Your task to perform on an android device: Open Google Image 0: 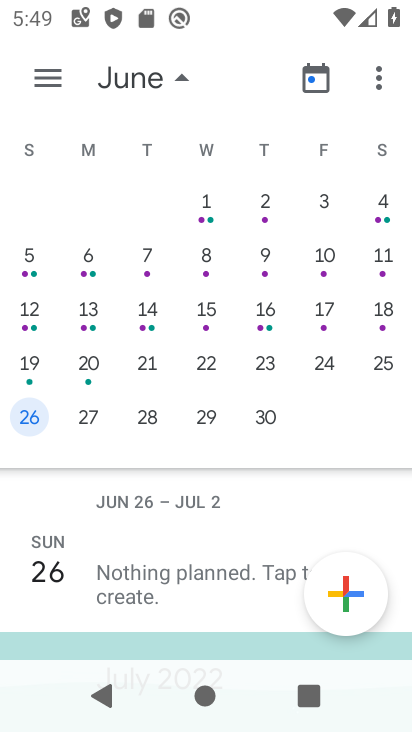
Step 0: press home button
Your task to perform on an android device: Open Google Image 1: 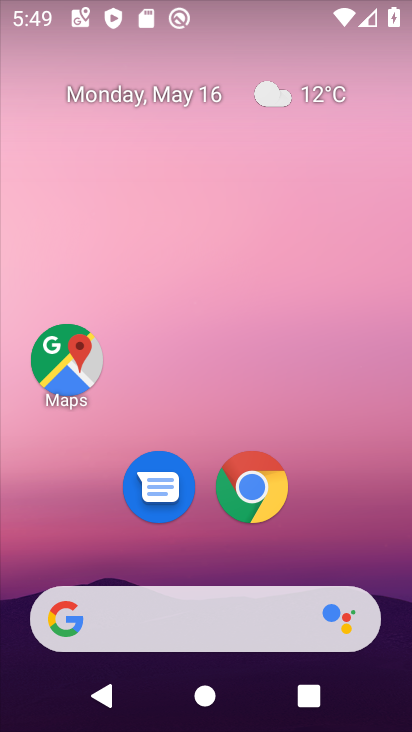
Step 1: drag from (374, 423) to (296, 0)
Your task to perform on an android device: Open Google Image 2: 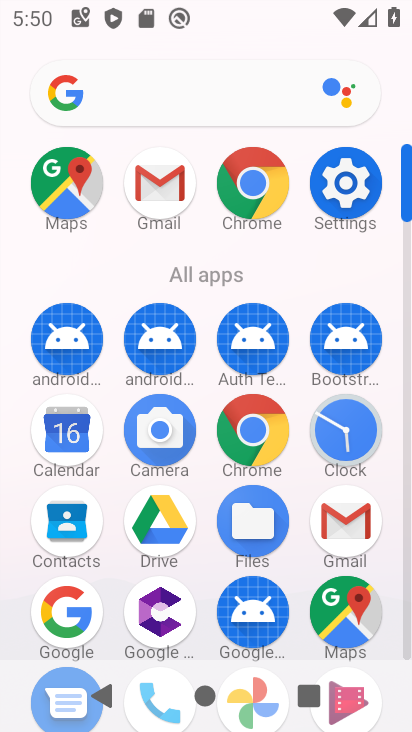
Step 2: click (58, 619)
Your task to perform on an android device: Open Google Image 3: 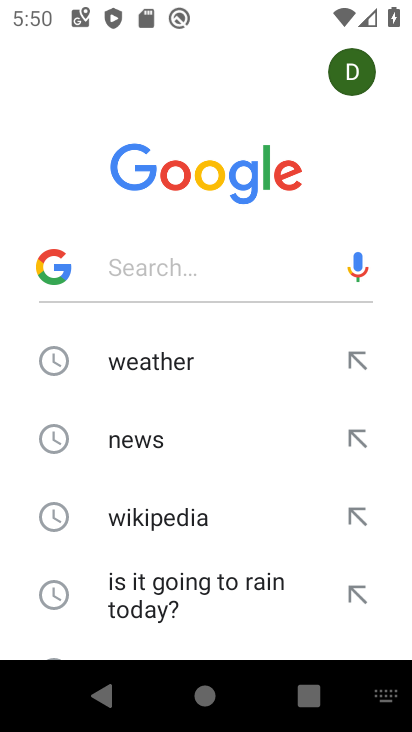
Step 3: task complete